Your task to perform on an android device: Open maps Image 0: 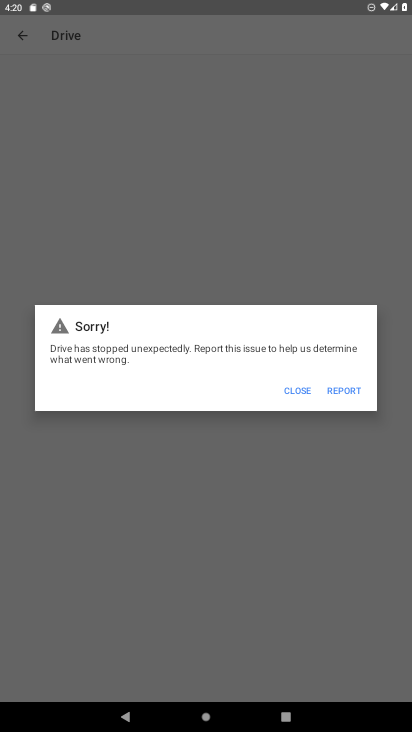
Step 0: press home button
Your task to perform on an android device: Open maps Image 1: 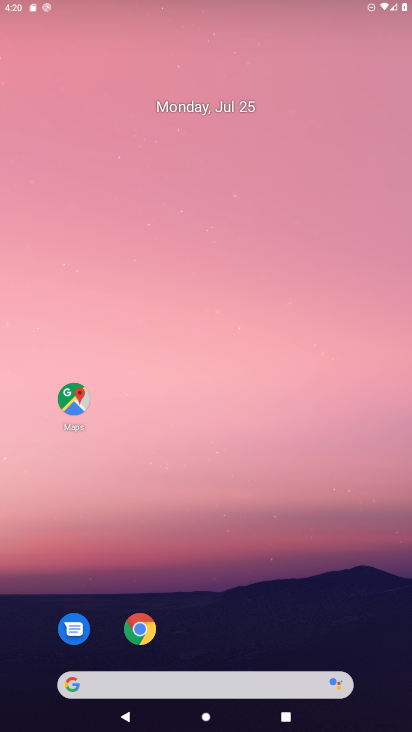
Step 1: drag from (250, 573) to (372, 558)
Your task to perform on an android device: Open maps Image 2: 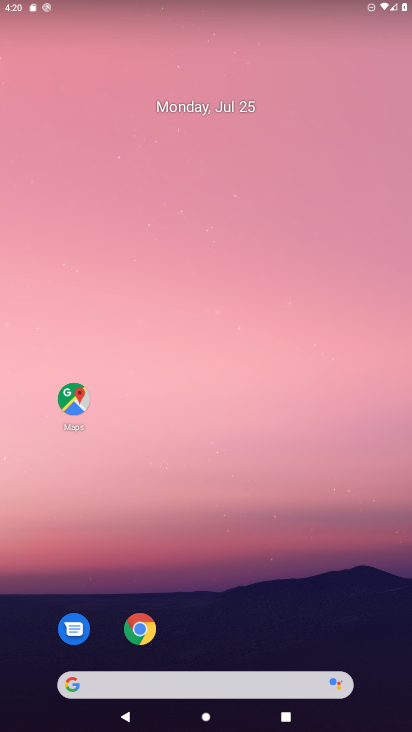
Step 2: drag from (128, 665) to (203, 8)
Your task to perform on an android device: Open maps Image 3: 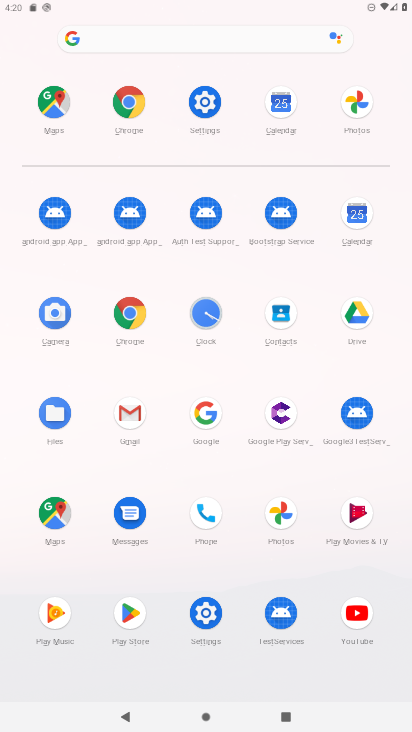
Step 3: click (50, 512)
Your task to perform on an android device: Open maps Image 4: 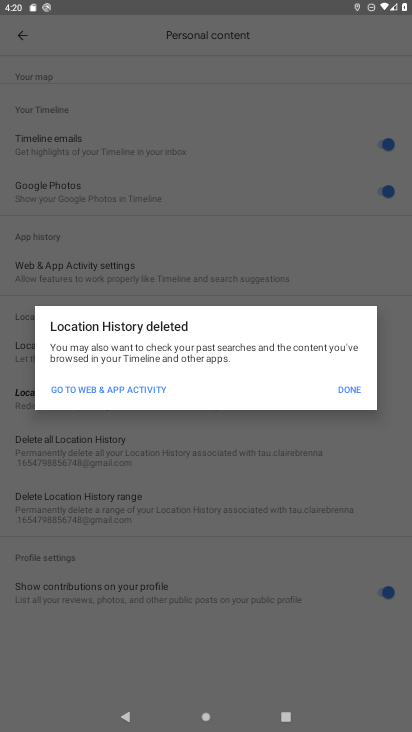
Step 4: click (344, 389)
Your task to perform on an android device: Open maps Image 5: 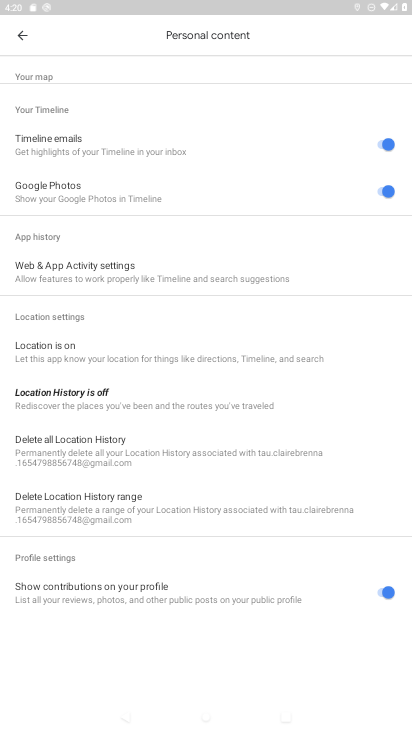
Step 5: task complete